Your task to perform on an android device: manage bookmarks in the chrome app Image 0: 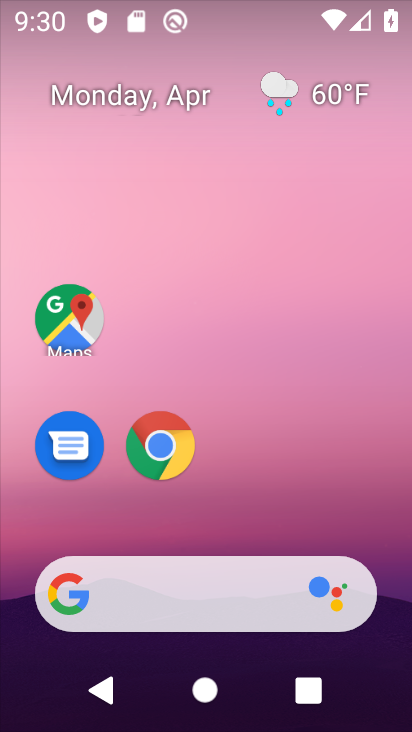
Step 0: click (181, 440)
Your task to perform on an android device: manage bookmarks in the chrome app Image 1: 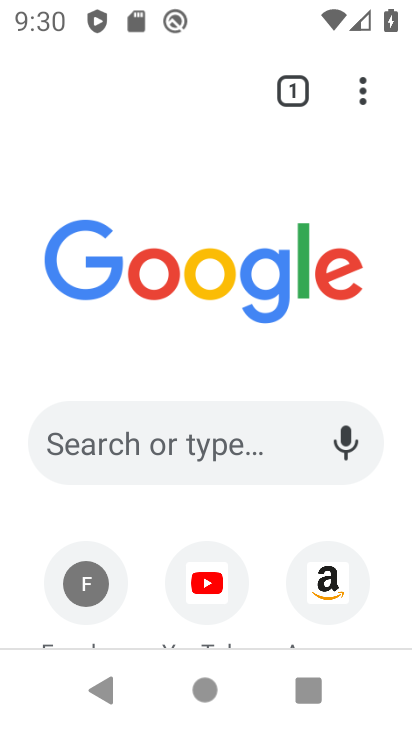
Step 1: click (364, 94)
Your task to perform on an android device: manage bookmarks in the chrome app Image 2: 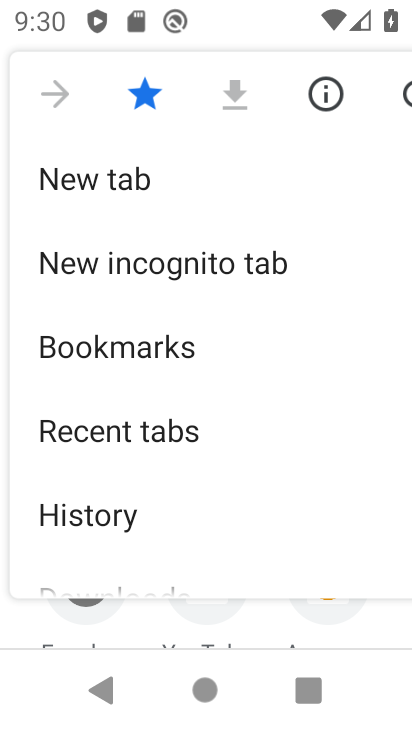
Step 2: click (193, 350)
Your task to perform on an android device: manage bookmarks in the chrome app Image 3: 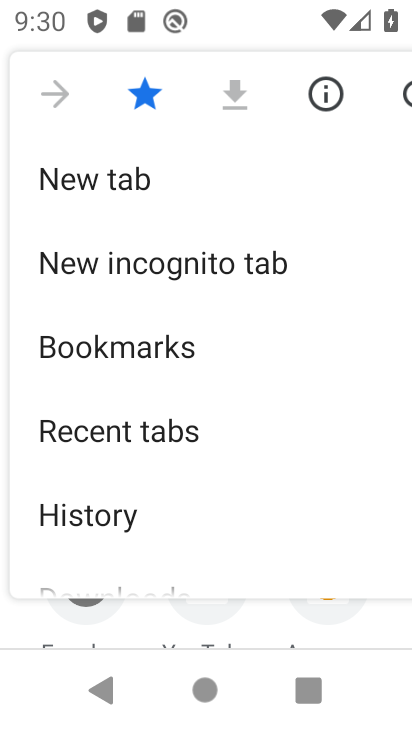
Step 3: click (193, 349)
Your task to perform on an android device: manage bookmarks in the chrome app Image 4: 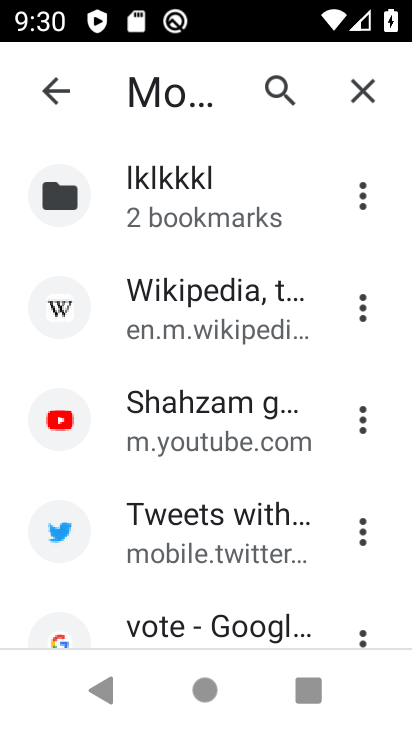
Step 4: click (365, 308)
Your task to perform on an android device: manage bookmarks in the chrome app Image 5: 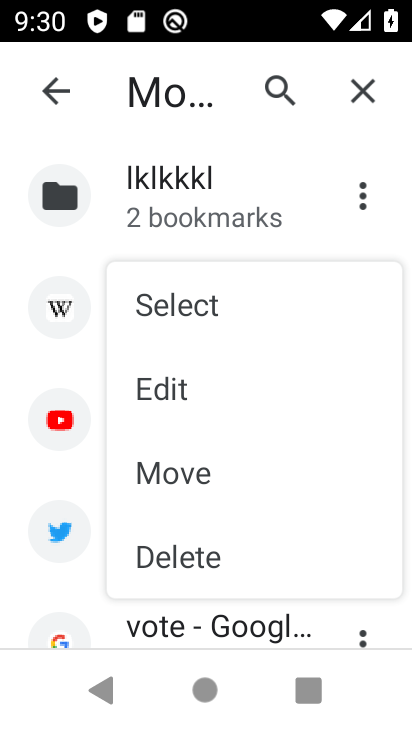
Step 5: click (269, 389)
Your task to perform on an android device: manage bookmarks in the chrome app Image 6: 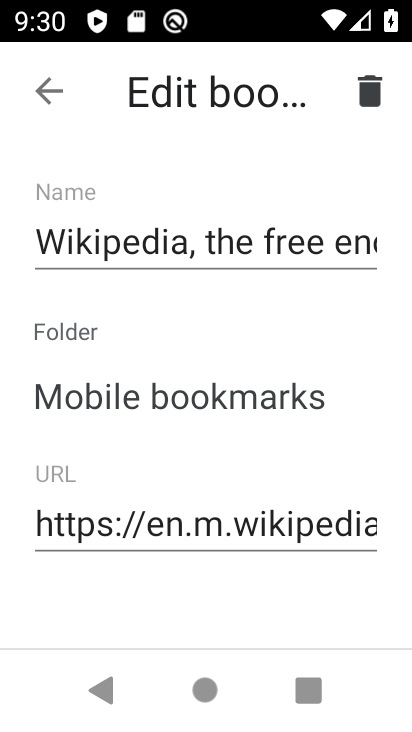
Step 6: click (45, 88)
Your task to perform on an android device: manage bookmarks in the chrome app Image 7: 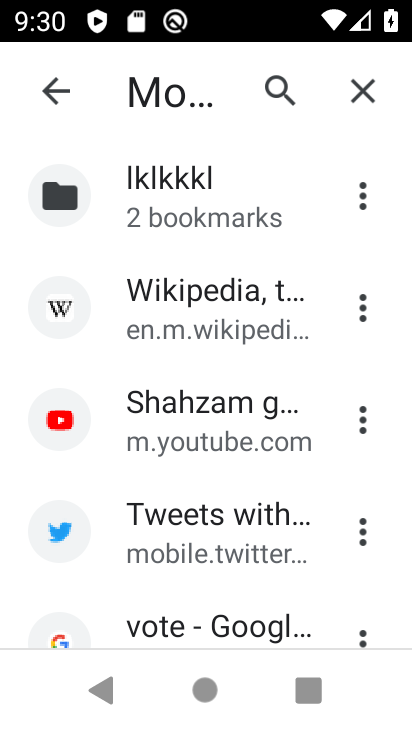
Step 7: task complete